Your task to perform on an android device: Play the last video I watched on Youtube Image 0: 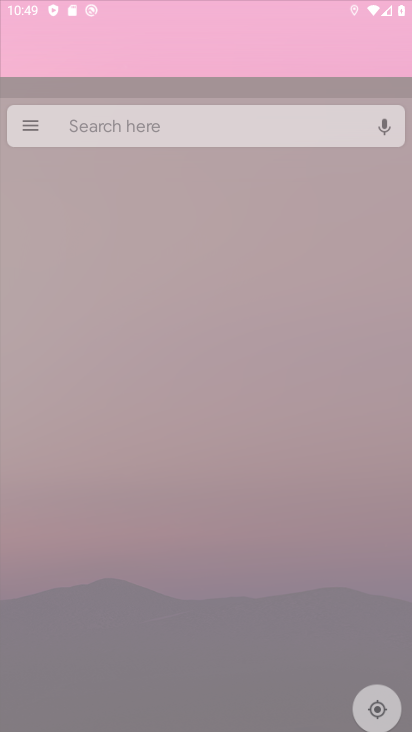
Step 0: drag from (243, 2) to (285, 0)
Your task to perform on an android device: Play the last video I watched on Youtube Image 1: 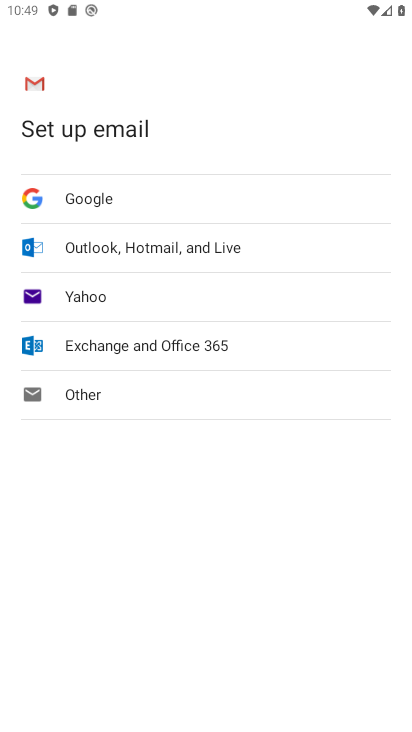
Step 1: press home button
Your task to perform on an android device: Play the last video I watched on Youtube Image 2: 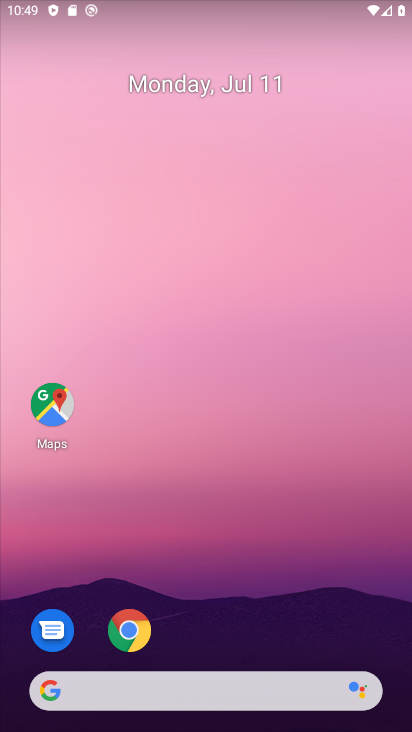
Step 2: drag from (230, 620) to (299, 28)
Your task to perform on an android device: Play the last video I watched on Youtube Image 3: 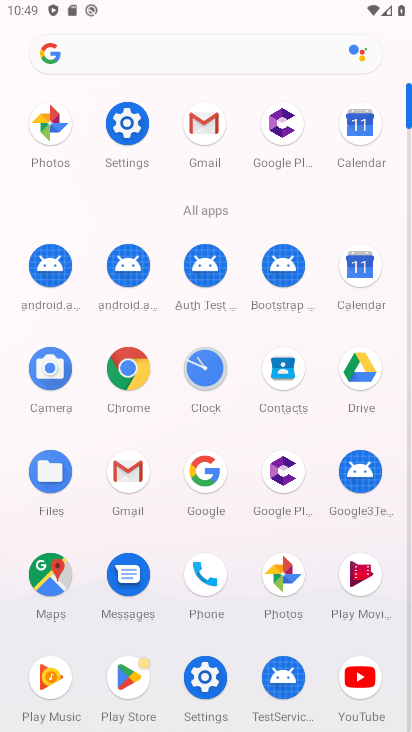
Step 3: click (365, 676)
Your task to perform on an android device: Play the last video I watched on Youtube Image 4: 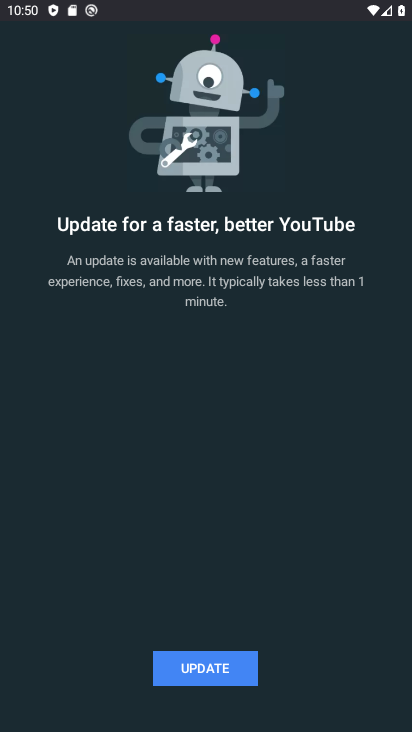
Step 4: click (221, 668)
Your task to perform on an android device: Play the last video I watched on Youtube Image 5: 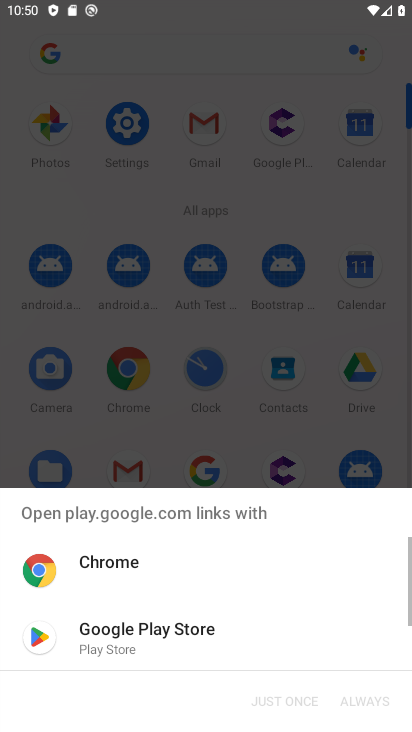
Step 5: click (154, 631)
Your task to perform on an android device: Play the last video I watched on Youtube Image 6: 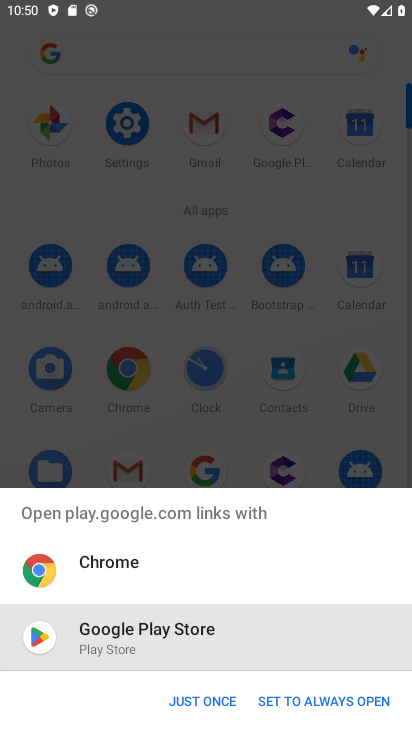
Step 6: click (212, 704)
Your task to perform on an android device: Play the last video I watched on Youtube Image 7: 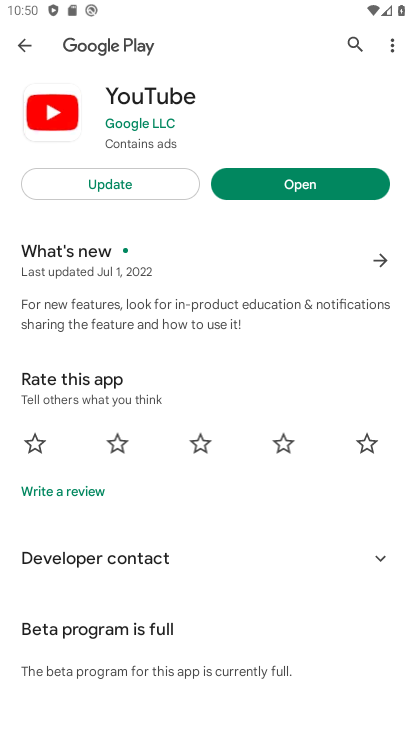
Step 7: click (120, 188)
Your task to perform on an android device: Play the last video I watched on Youtube Image 8: 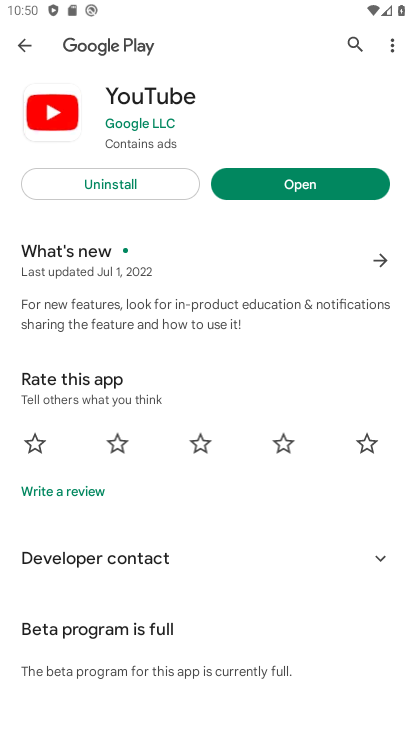
Step 8: click (305, 164)
Your task to perform on an android device: Play the last video I watched on Youtube Image 9: 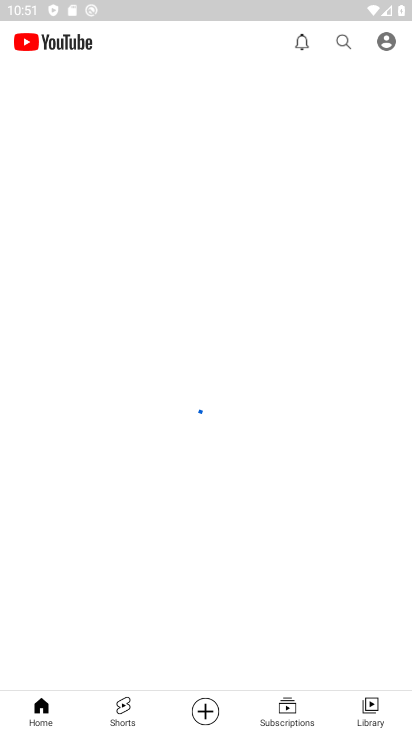
Step 9: click (367, 709)
Your task to perform on an android device: Play the last video I watched on Youtube Image 10: 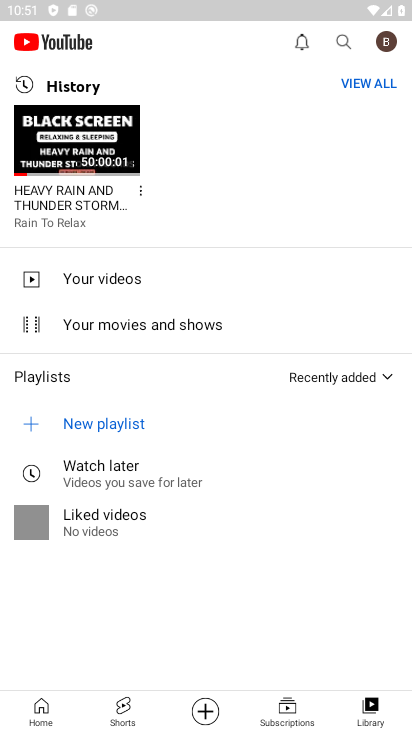
Step 10: click (65, 147)
Your task to perform on an android device: Play the last video I watched on Youtube Image 11: 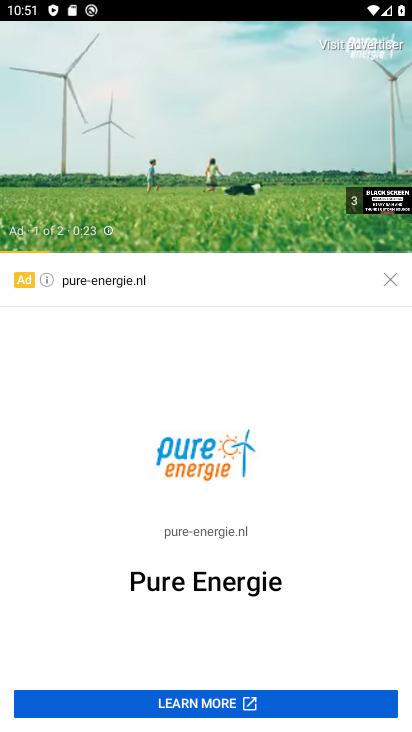
Step 11: task complete